Your task to perform on an android device: toggle pop-ups in chrome Image 0: 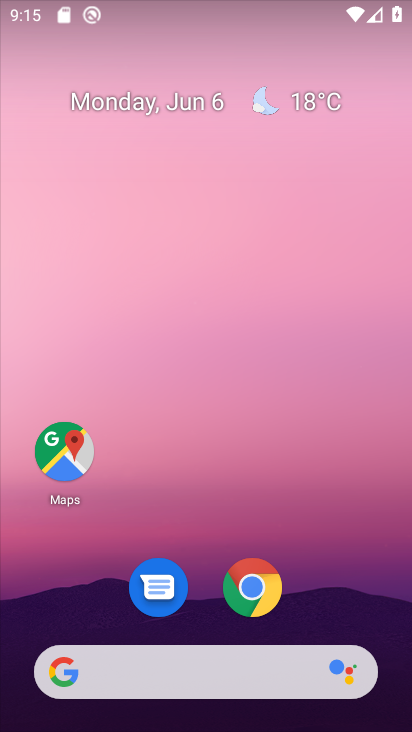
Step 0: click (241, 595)
Your task to perform on an android device: toggle pop-ups in chrome Image 1: 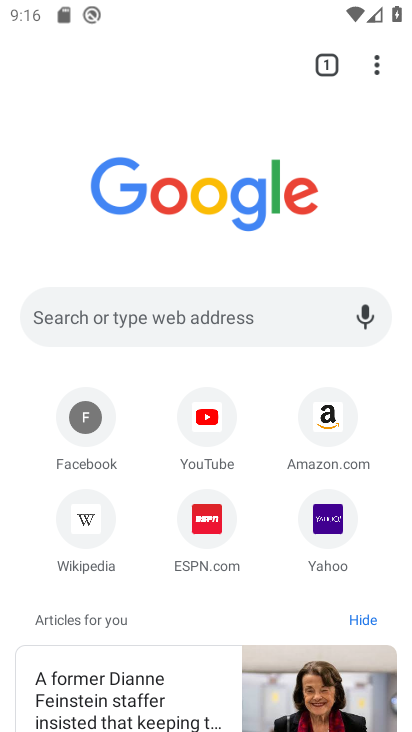
Step 1: drag from (384, 61) to (236, 551)
Your task to perform on an android device: toggle pop-ups in chrome Image 2: 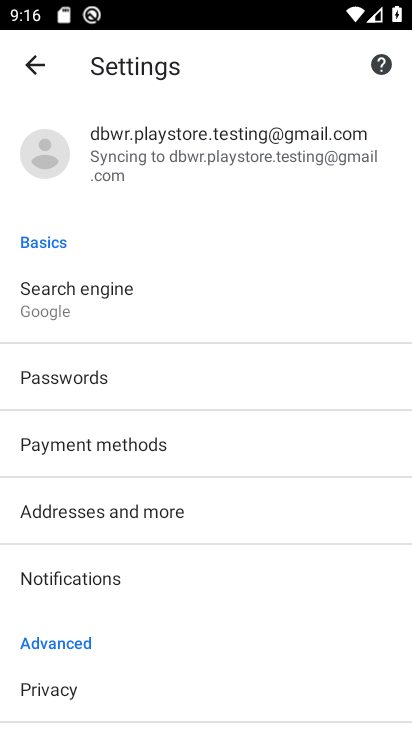
Step 2: drag from (188, 620) to (266, 363)
Your task to perform on an android device: toggle pop-ups in chrome Image 3: 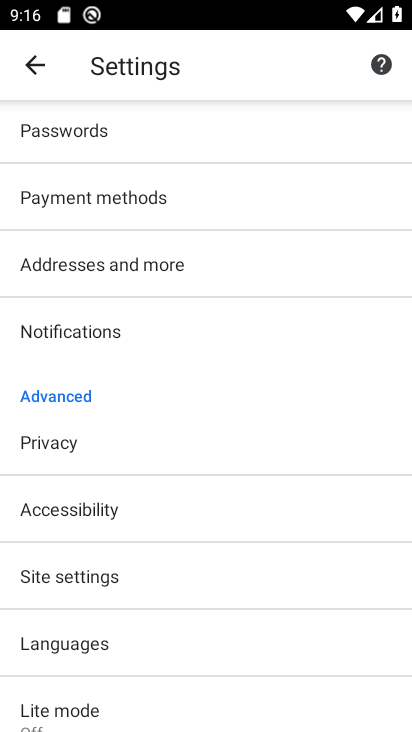
Step 3: click (177, 596)
Your task to perform on an android device: toggle pop-ups in chrome Image 4: 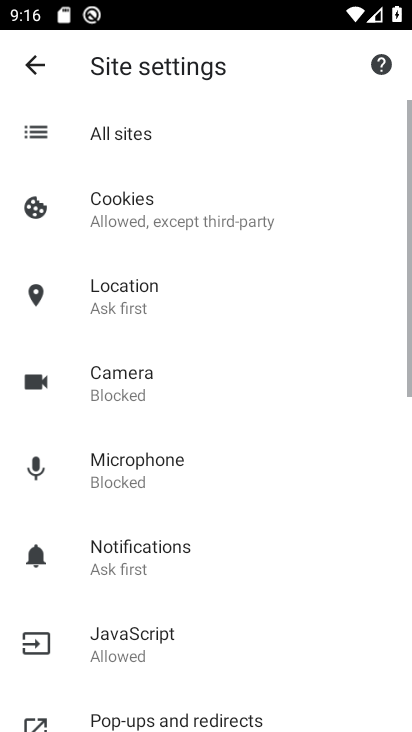
Step 4: drag from (189, 597) to (271, 312)
Your task to perform on an android device: toggle pop-ups in chrome Image 5: 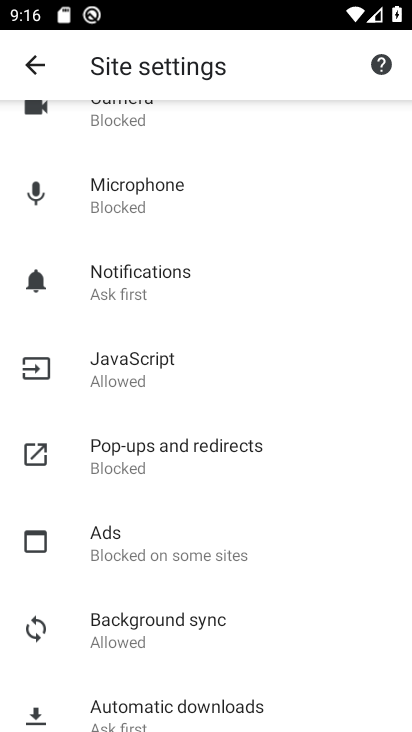
Step 5: click (214, 459)
Your task to perform on an android device: toggle pop-ups in chrome Image 6: 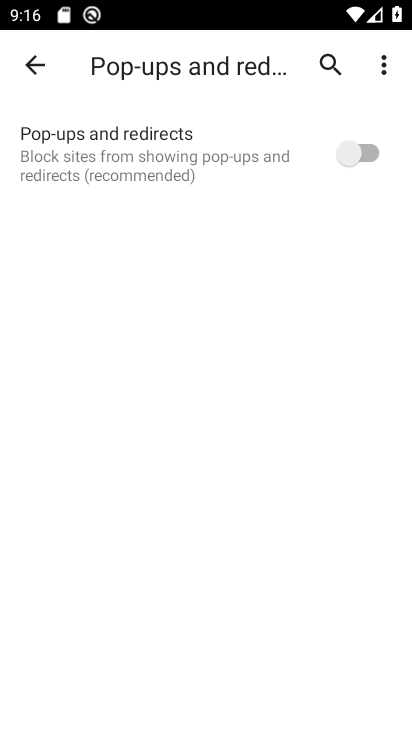
Step 6: task complete